Your task to perform on an android device: toggle notifications settings in the gmail app Image 0: 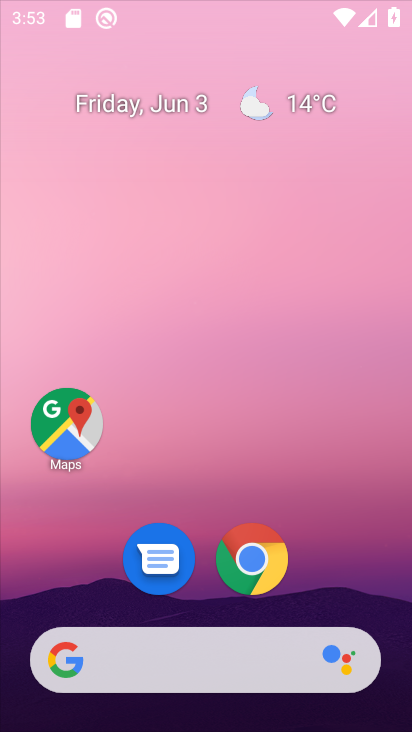
Step 0: click (153, 142)
Your task to perform on an android device: toggle notifications settings in the gmail app Image 1: 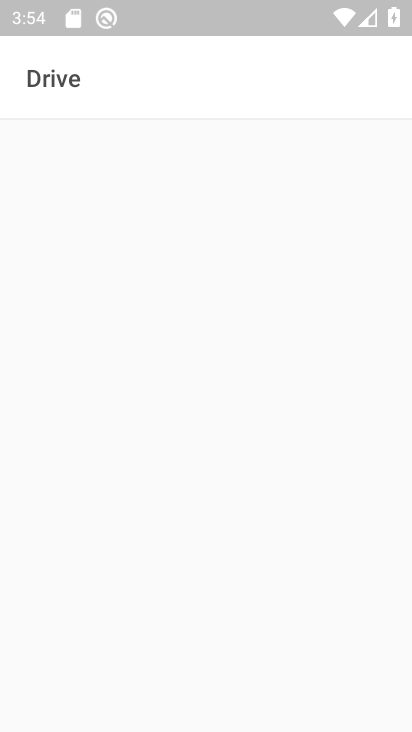
Step 1: press back button
Your task to perform on an android device: toggle notifications settings in the gmail app Image 2: 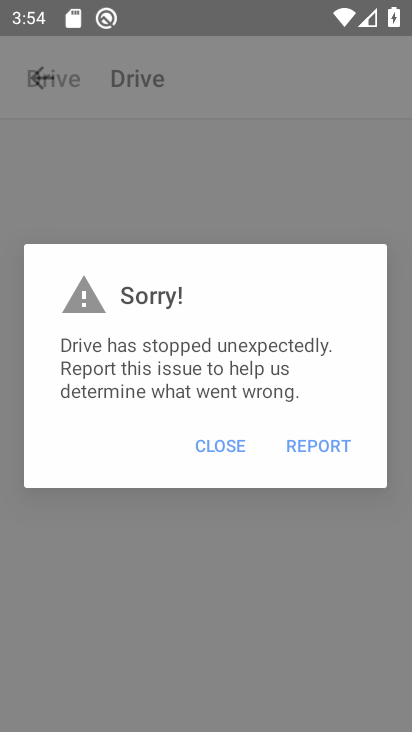
Step 2: press home button
Your task to perform on an android device: toggle notifications settings in the gmail app Image 3: 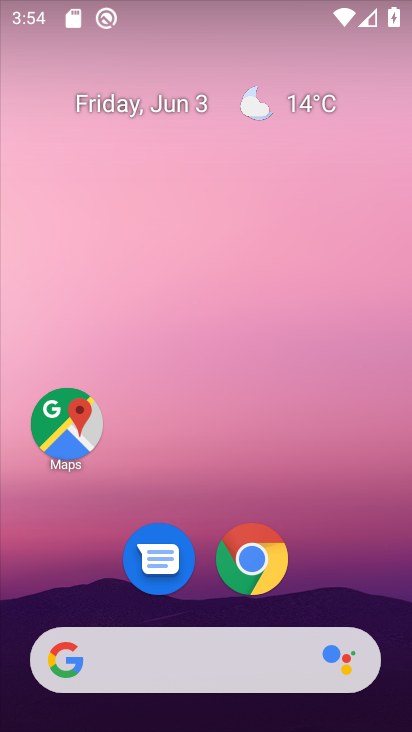
Step 3: drag from (188, 649) to (108, 197)
Your task to perform on an android device: toggle notifications settings in the gmail app Image 4: 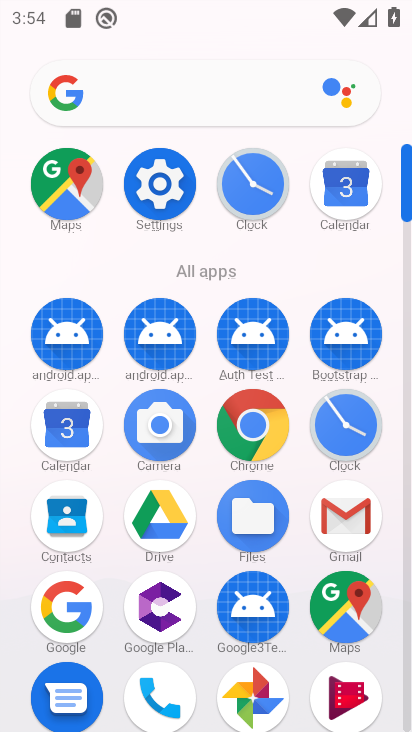
Step 4: click (346, 514)
Your task to perform on an android device: toggle notifications settings in the gmail app Image 5: 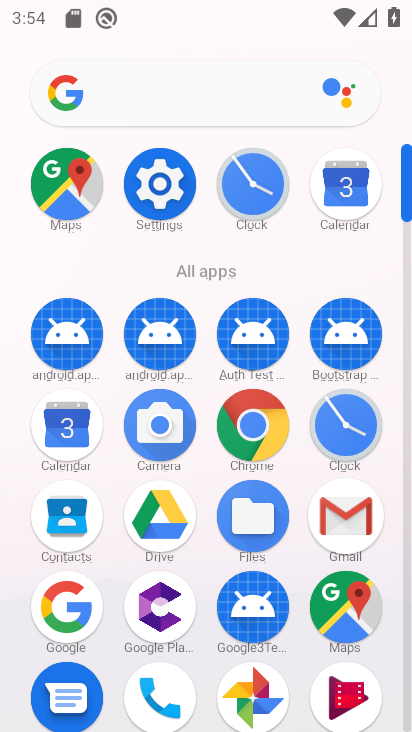
Step 5: click (341, 515)
Your task to perform on an android device: toggle notifications settings in the gmail app Image 6: 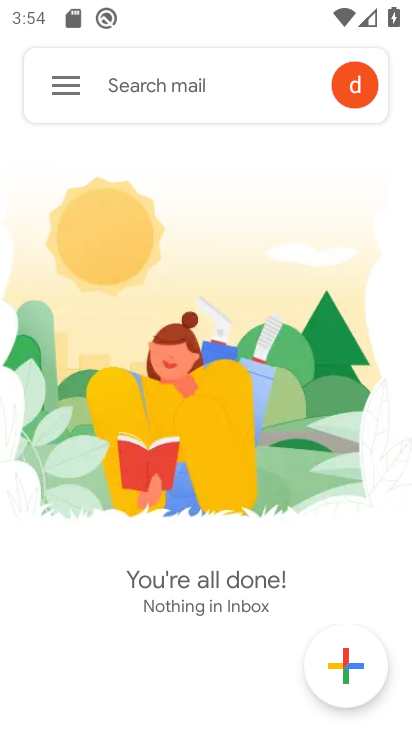
Step 6: click (340, 516)
Your task to perform on an android device: toggle notifications settings in the gmail app Image 7: 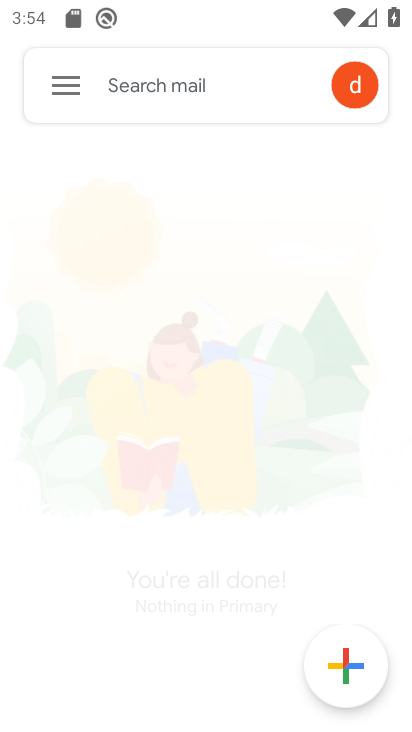
Step 7: click (51, 86)
Your task to perform on an android device: toggle notifications settings in the gmail app Image 8: 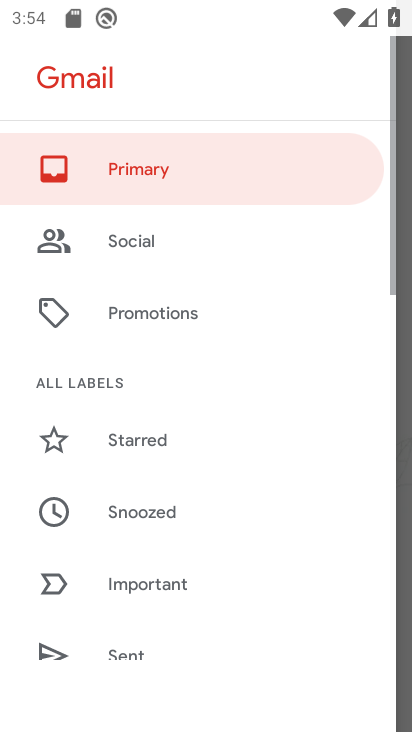
Step 8: click (45, 86)
Your task to perform on an android device: toggle notifications settings in the gmail app Image 9: 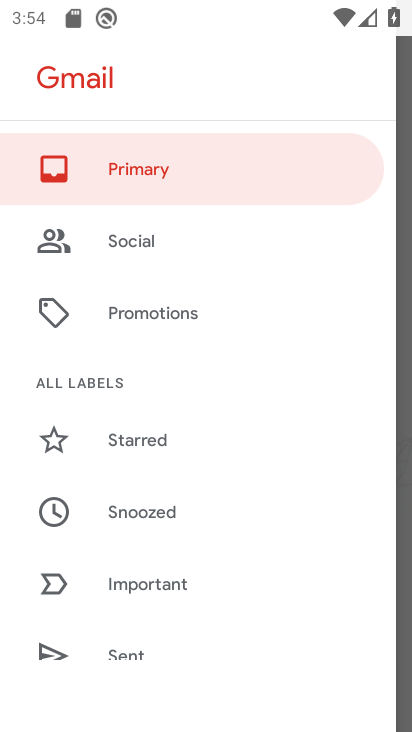
Step 9: drag from (140, 611) to (157, 211)
Your task to perform on an android device: toggle notifications settings in the gmail app Image 10: 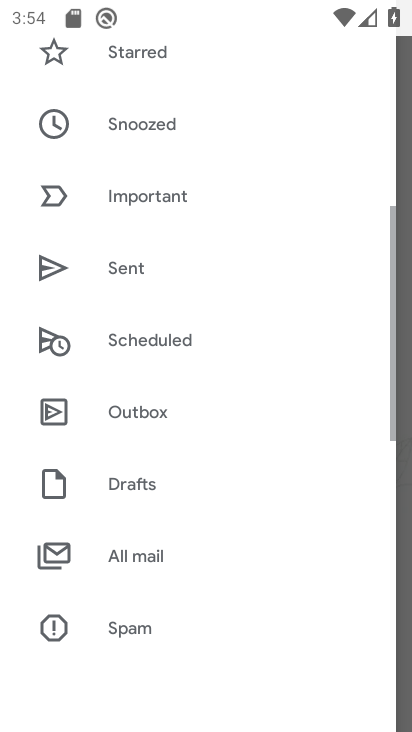
Step 10: drag from (159, 532) to (132, 69)
Your task to perform on an android device: toggle notifications settings in the gmail app Image 11: 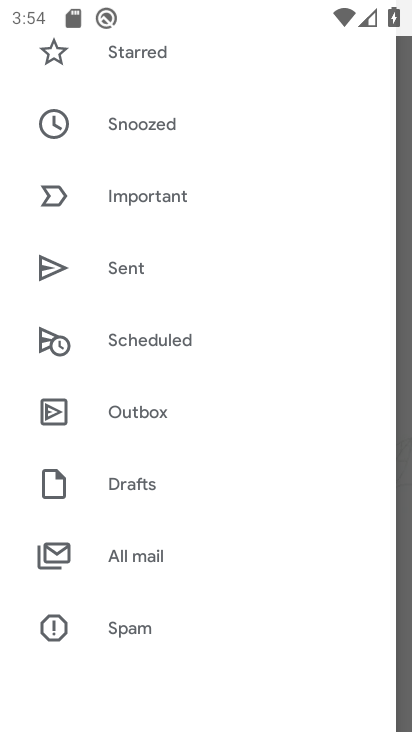
Step 11: drag from (137, 614) to (141, 71)
Your task to perform on an android device: toggle notifications settings in the gmail app Image 12: 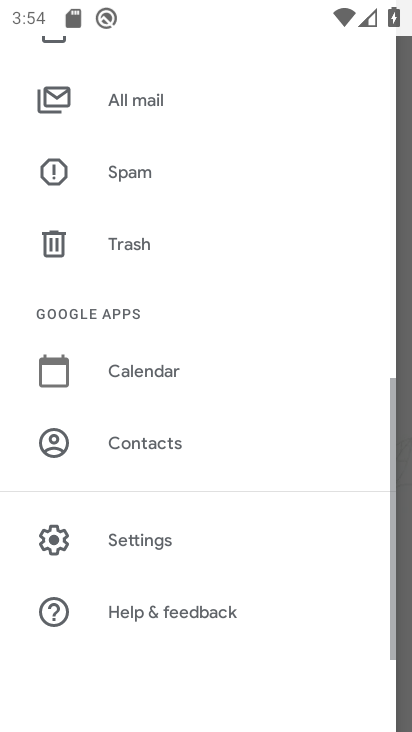
Step 12: drag from (153, 438) to (152, 38)
Your task to perform on an android device: toggle notifications settings in the gmail app Image 13: 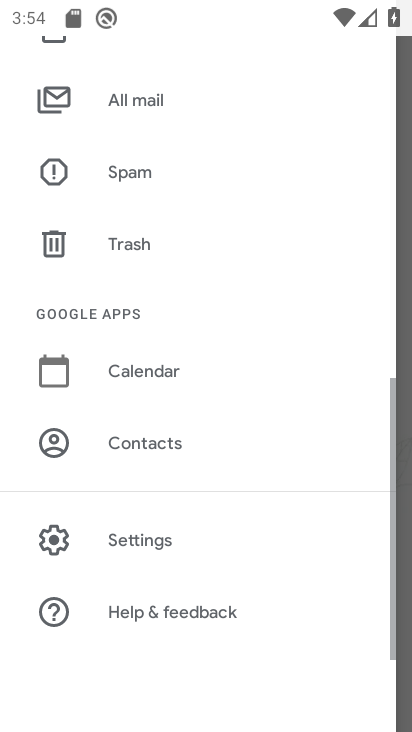
Step 13: click (144, 535)
Your task to perform on an android device: toggle notifications settings in the gmail app Image 14: 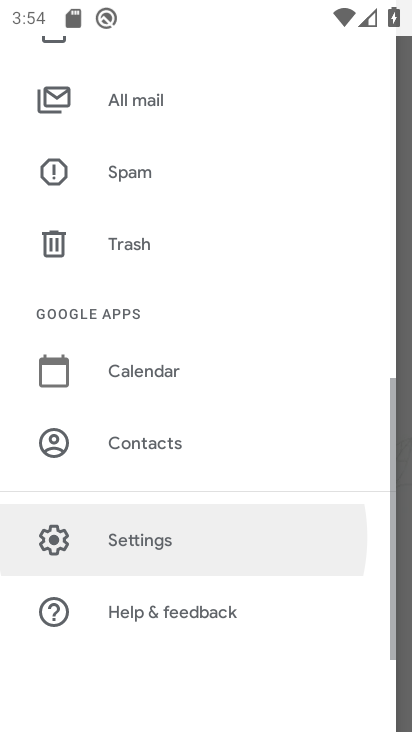
Step 14: click (146, 537)
Your task to perform on an android device: toggle notifications settings in the gmail app Image 15: 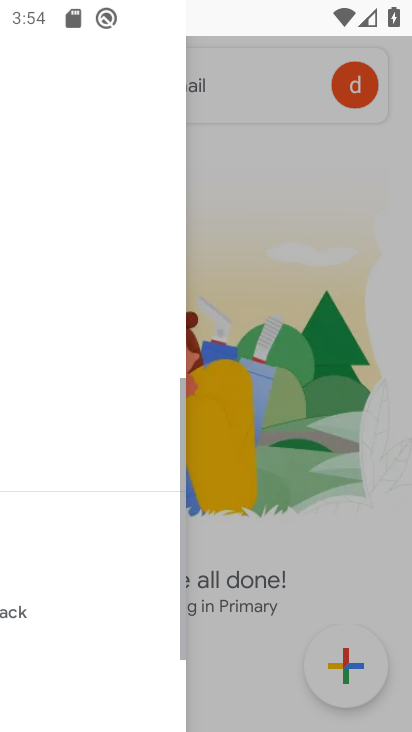
Step 15: click (146, 537)
Your task to perform on an android device: toggle notifications settings in the gmail app Image 16: 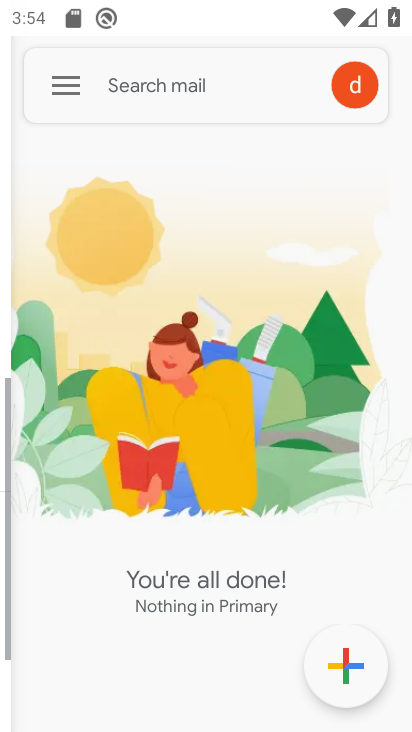
Step 16: click (146, 537)
Your task to perform on an android device: toggle notifications settings in the gmail app Image 17: 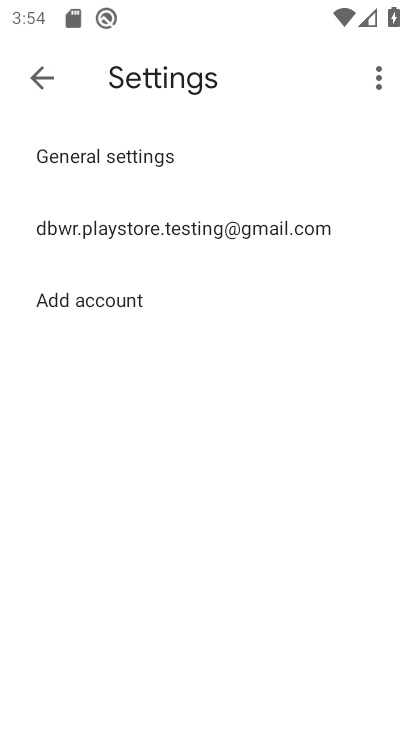
Step 17: click (115, 230)
Your task to perform on an android device: toggle notifications settings in the gmail app Image 18: 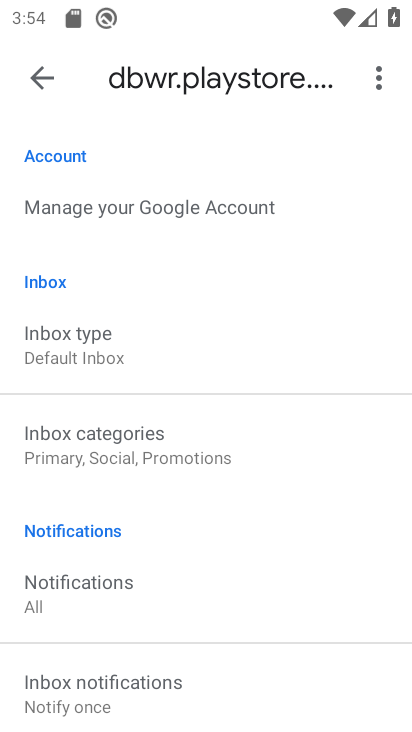
Step 18: drag from (108, 491) to (132, 157)
Your task to perform on an android device: toggle notifications settings in the gmail app Image 19: 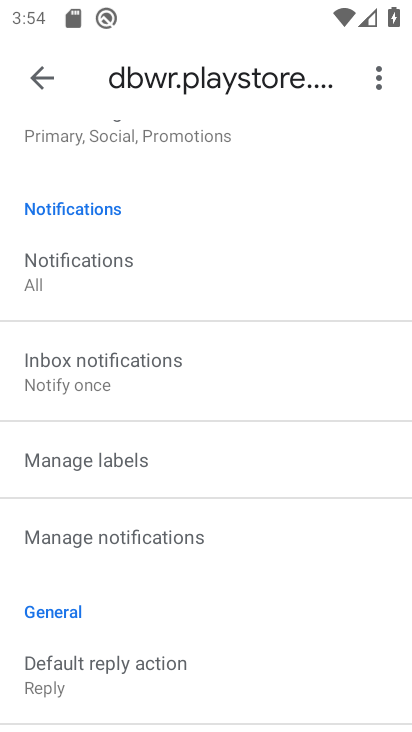
Step 19: click (65, 268)
Your task to perform on an android device: toggle notifications settings in the gmail app Image 20: 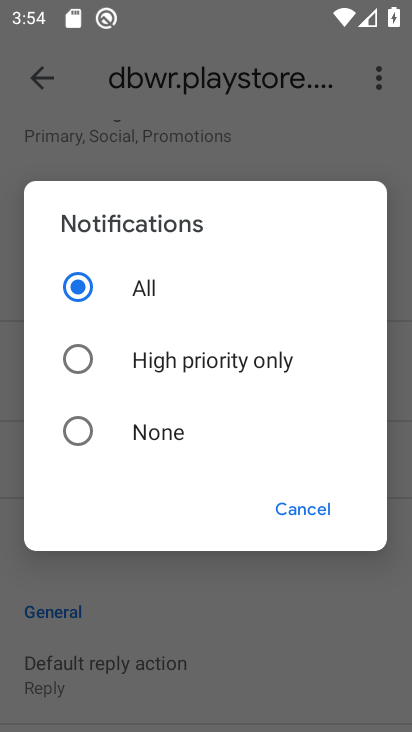
Step 20: click (68, 346)
Your task to perform on an android device: toggle notifications settings in the gmail app Image 21: 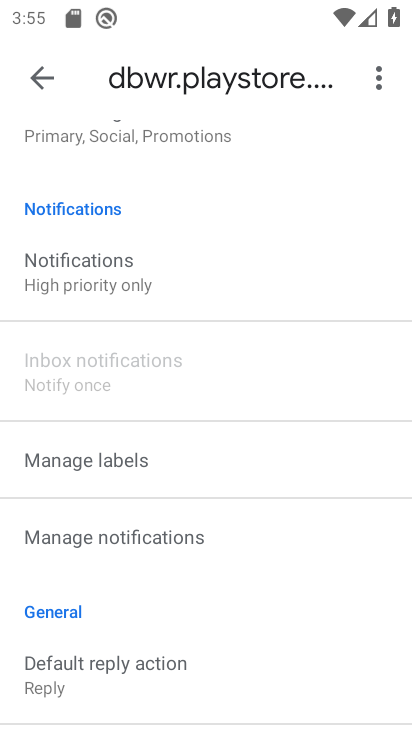
Step 21: task complete